Your task to perform on an android device: Open my contact list Image 0: 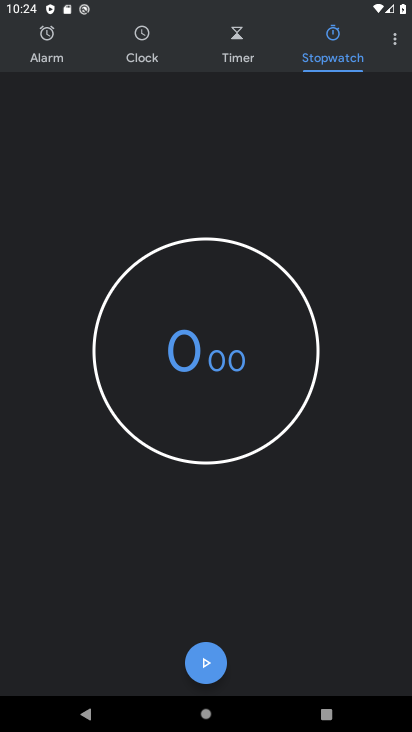
Step 0: press home button
Your task to perform on an android device: Open my contact list Image 1: 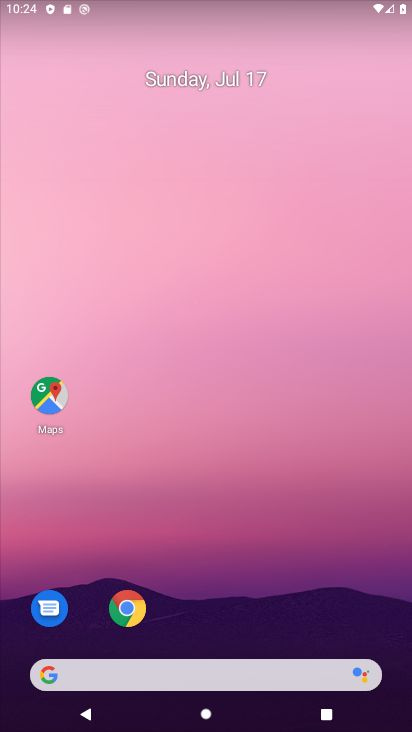
Step 1: drag from (275, 304) to (400, 90)
Your task to perform on an android device: Open my contact list Image 2: 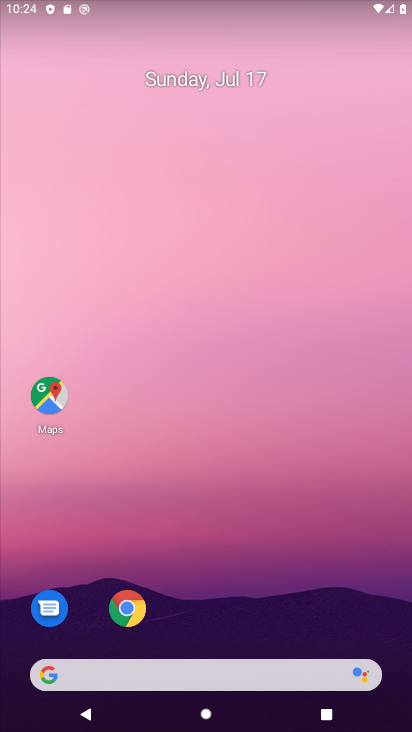
Step 2: drag from (11, 692) to (230, 53)
Your task to perform on an android device: Open my contact list Image 3: 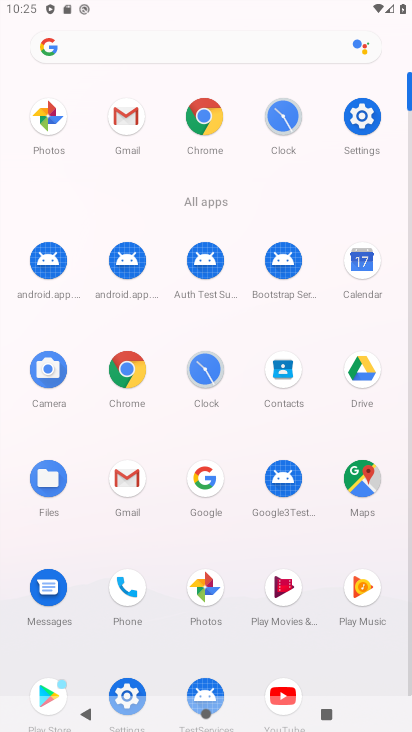
Step 3: click (273, 385)
Your task to perform on an android device: Open my contact list Image 4: 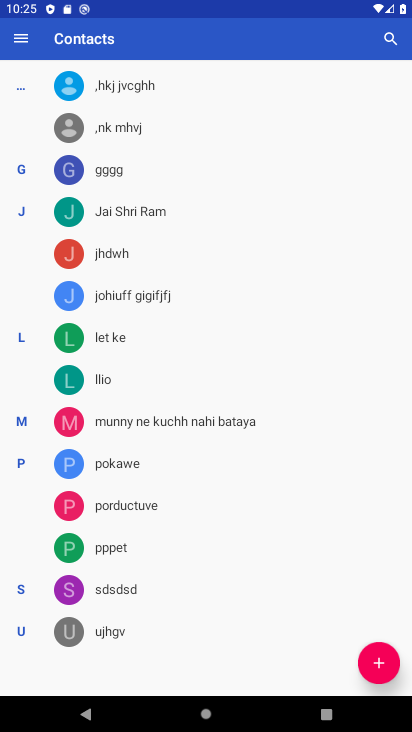
Step 4: task complete